Your task to perform on an android device: open the mobile data screen to see how much data has been used Image 0: 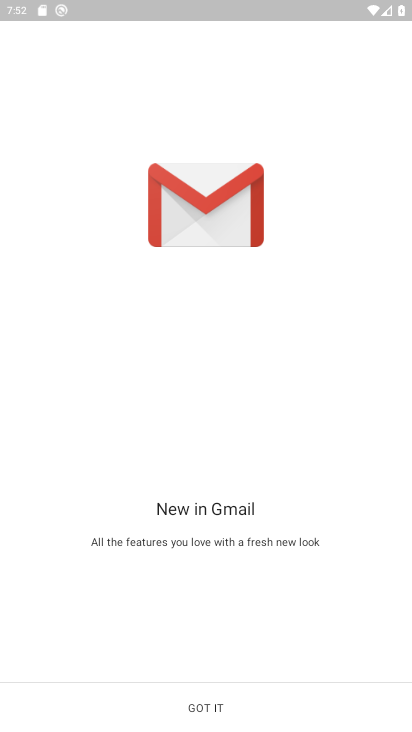
Step 0: press home button
Your task to perform on an android device: open the mobile data screen to see how much data has been used Image 1: 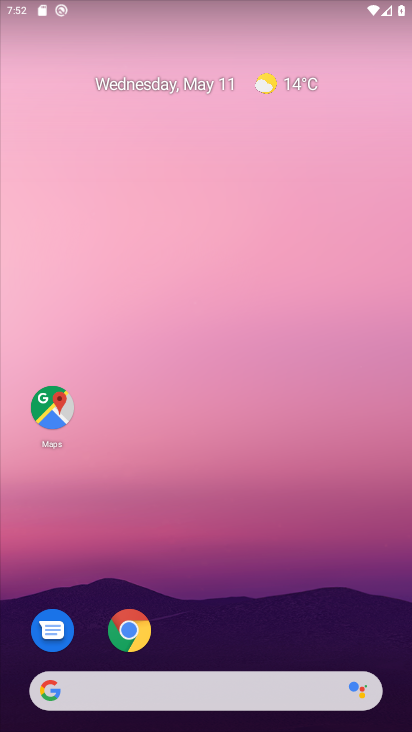
Step 1: press home button
Your task to perform on an android device: open the mobile data screen to see how much data has been used Image 2: 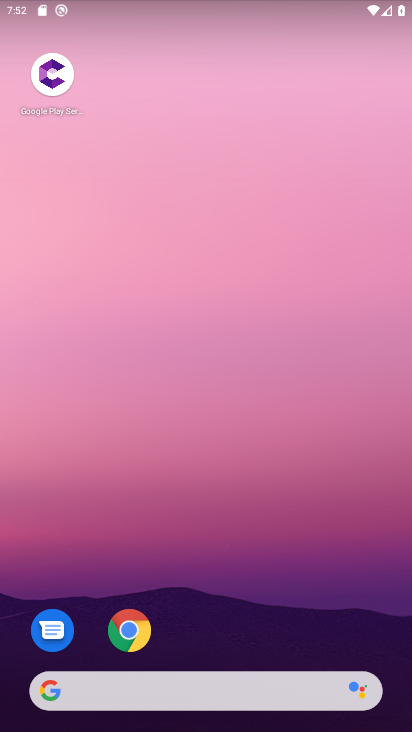
Step 2: drag from (18, 630) to (222, 158)
Your task to perform on an android device: open the mobile data screen to see how much data has been used Image 3: 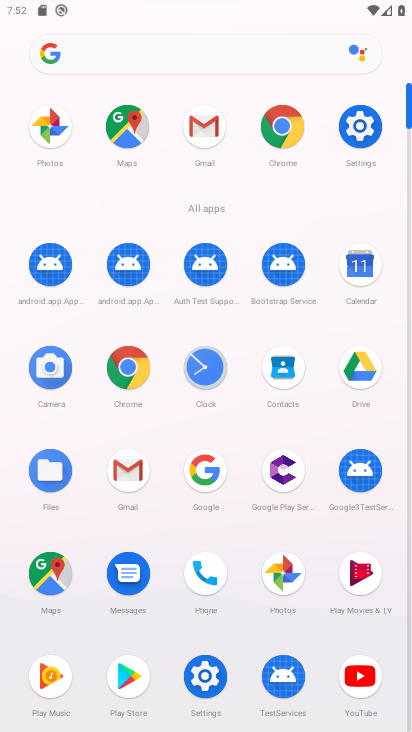
Step 3: click (350, 129)
Your task to perform on an android device: open the mobile data screen to see how much data has been used Image 4: 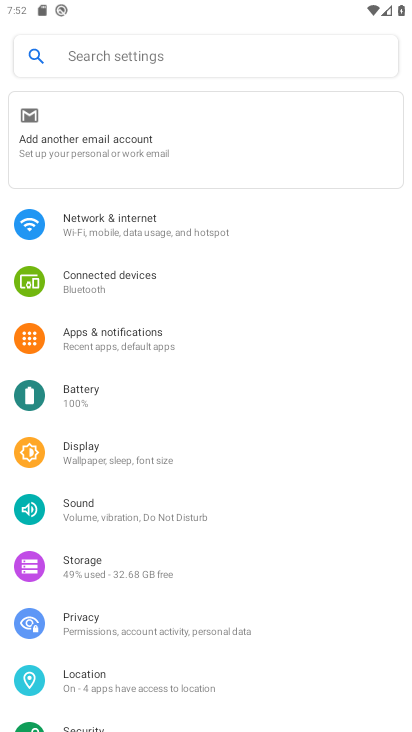
Step 4: click (78, 242)
Your task to perform on an android device: open the mobile data screen to see how much data has been used Image 5: 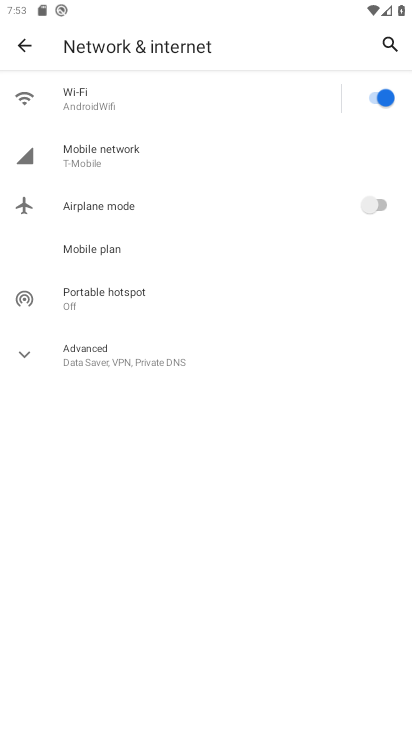
Step 5: click (92, 150)
Your task to perform on an android device: open the mobile data screen to see how much data has been used Image 6: 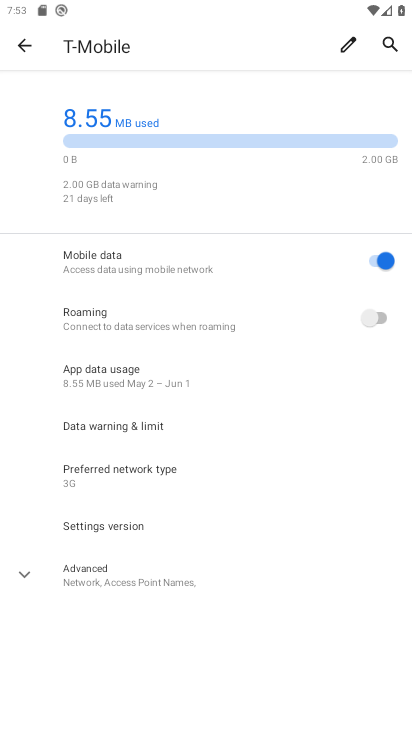
Step 6: click (106, 131)
Your task to perform on an android device: open the mobile data screen to see how much data has been used Image 7: 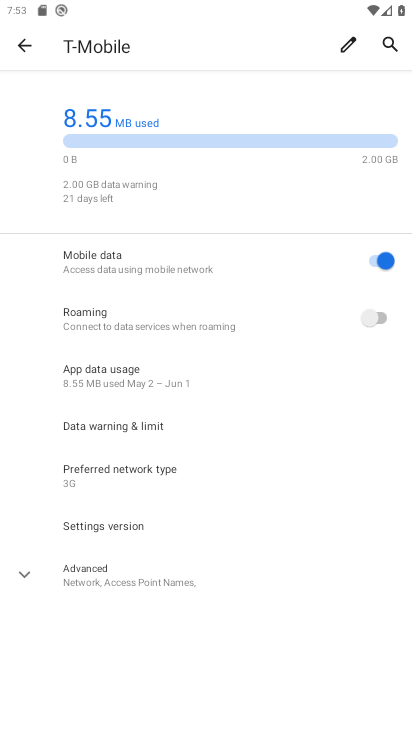
Step 7: task complete